Your task to perform on an android device: choose inbox layout in the gmail app Image 0: 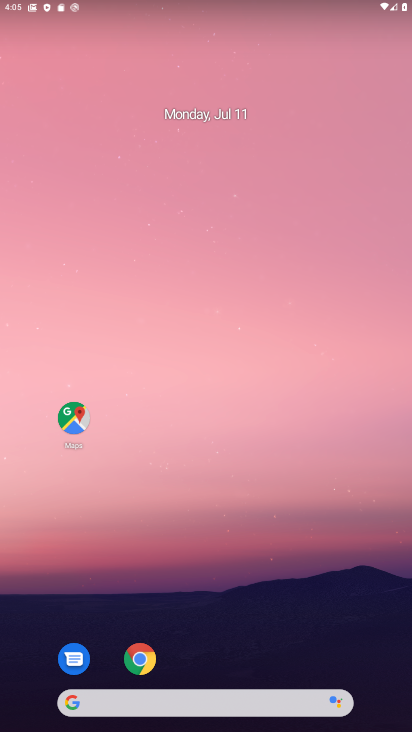
Step 0: drag from (178, 661) to (203, 200)
Your task to perform on an android device: choose inbox layout in the gmail app Image 1: 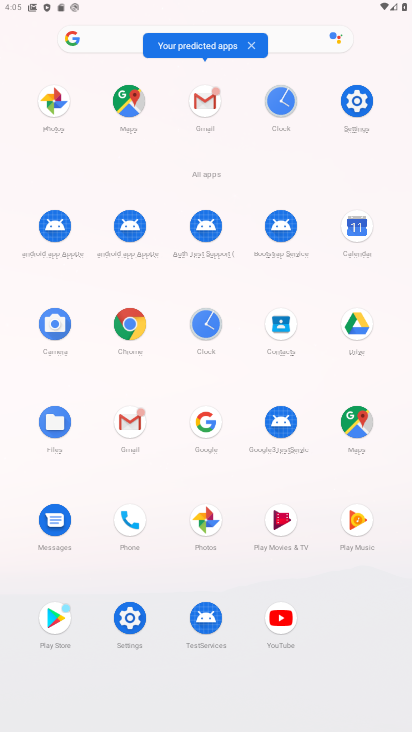
Step 1: click (139, 414)
Your task to perform on an android device: choose inbox layout in the gmail app Image 2: 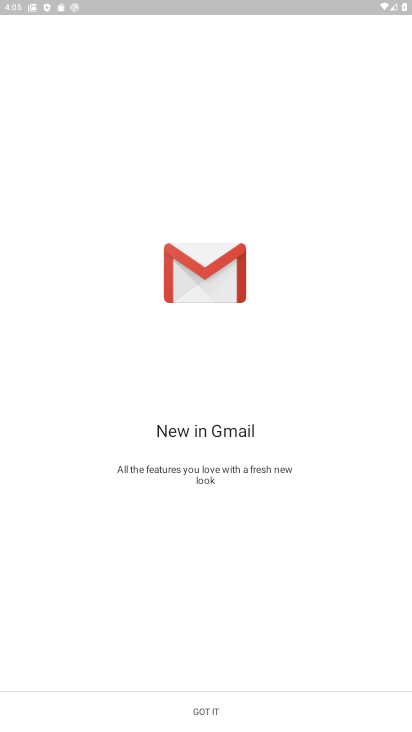
Step 2: click (231, 699)
Your task to perform on an android device: choose inbox layout in the gmail app Image 3: 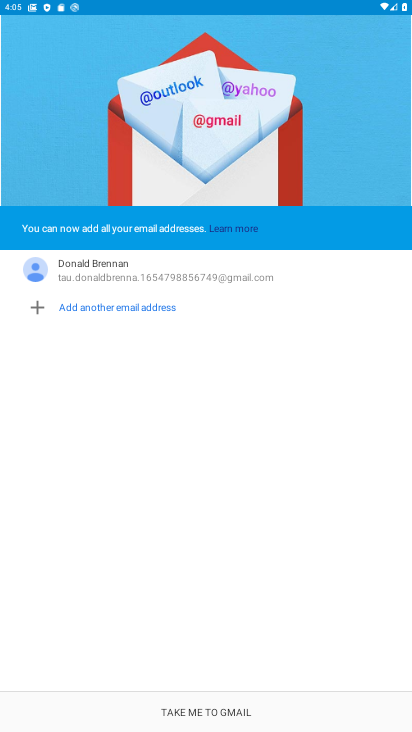
Step 3: click (231, 699)
Your task to perform on an android device: choose inbox layout in the gmail app Image 4: 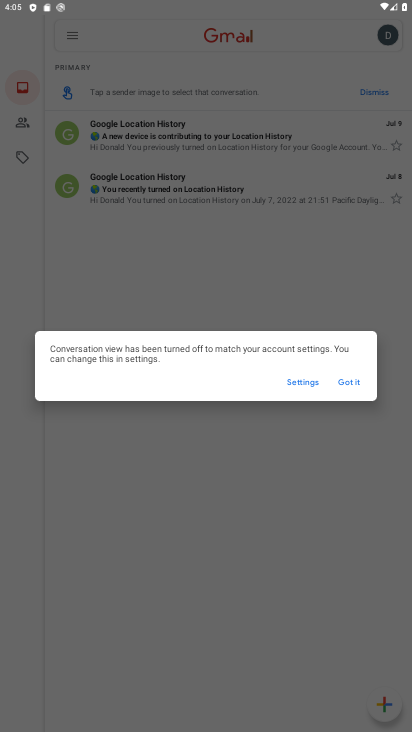
Step 4: click (352, 386)
Your task to perform on an android device: choose inbox layout in the gmail app Image 5: 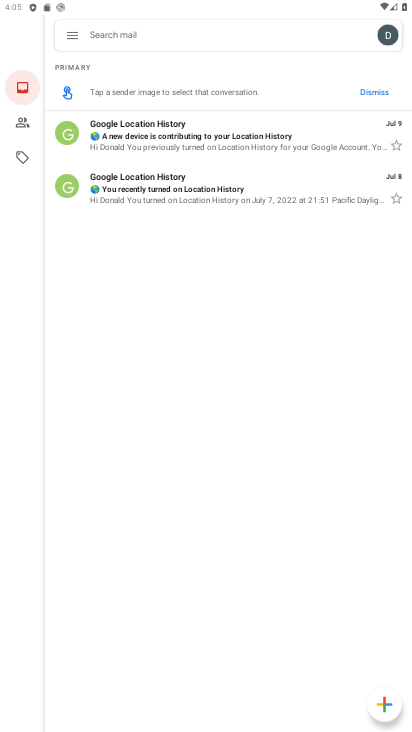
Step 5: click (81, 42)
Your task to perform on an android device: choose inbox layout in the gmail app Image 6: 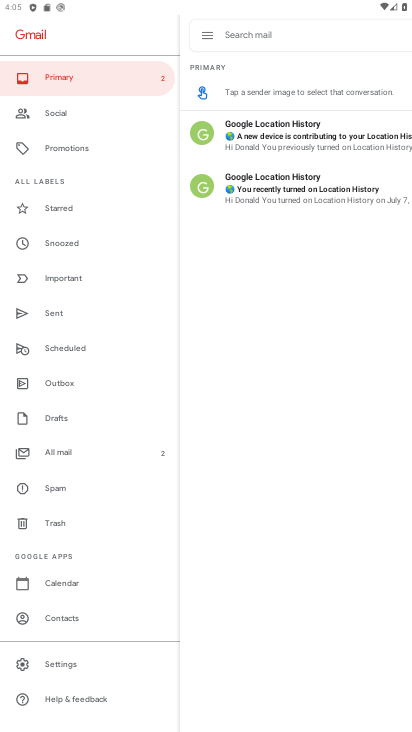
Step 6: click (46, 667)
Your task to perform on an android device: choose inbox layout in the gmail app Image 7: 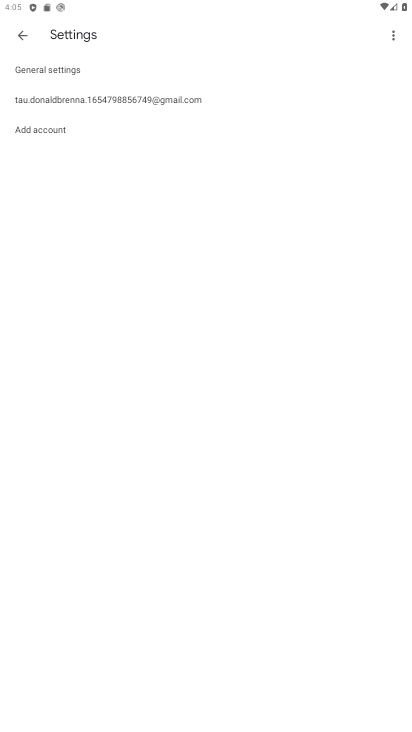
Step 7: click (190, 97)
Your task to perform on an android device: choose inbox layout in the gmail app Image 8: 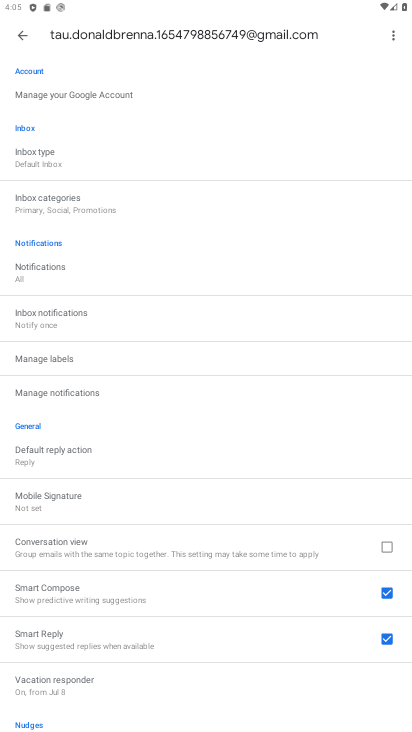
Step 8: click (48, 165)
Your task to perform on an android device: choose inbox layout in the gmail app Image 9: 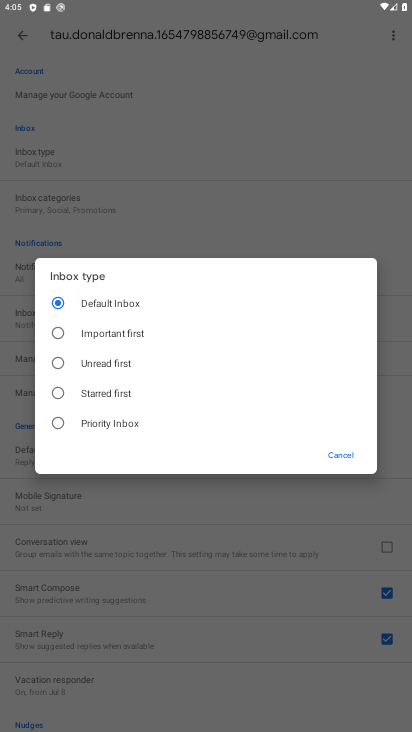
Step 9: click (136, 377)
Your task to perform on an android device: choose inbox layout in the gmail app Image 10: 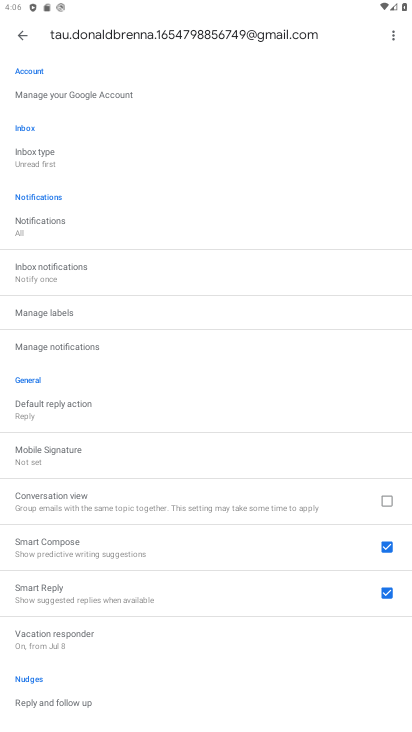
Step 10: task complete